Your task to perform on an android device: allow cookies in the chrome app Image 0: 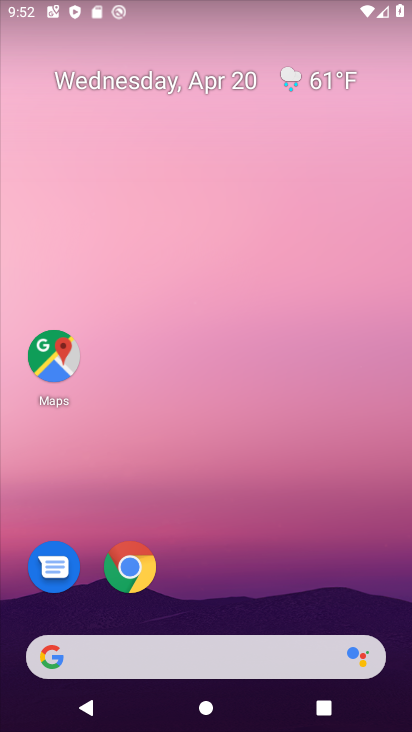
Step 0: click (127, 570)
Your task to perform on an android device: allow cookies in the chrome app Image 1: 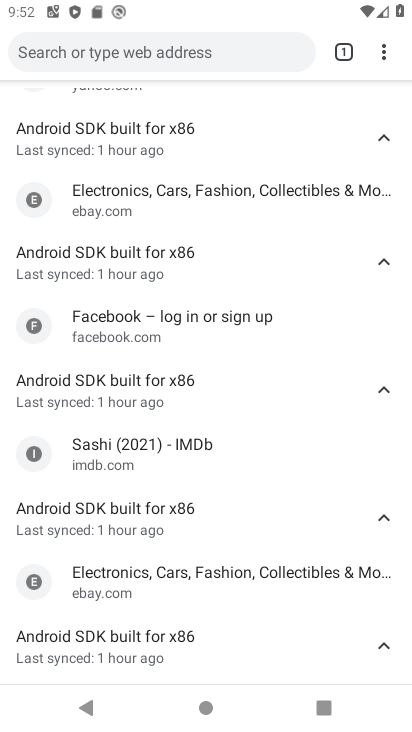
Step 1: drag from (376, 54) to (217, 492)
Your task to perform on an android device: allow cookies in the chrome app Image 2: 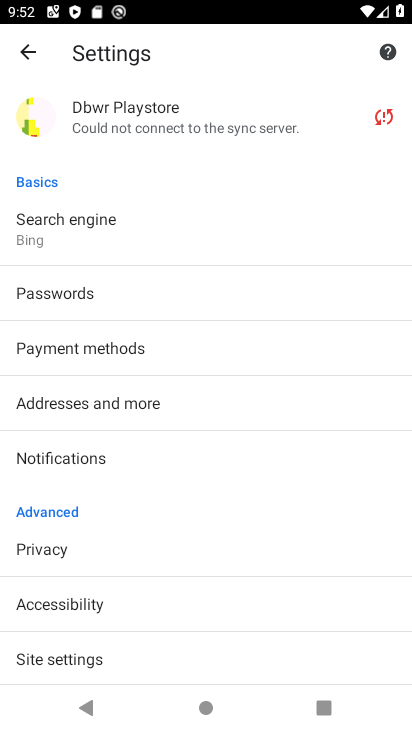
Step 2: drag from (168, 607) to (188, 372)
Your task to perform on an android device: allow cookies in the chrome app Image 3: 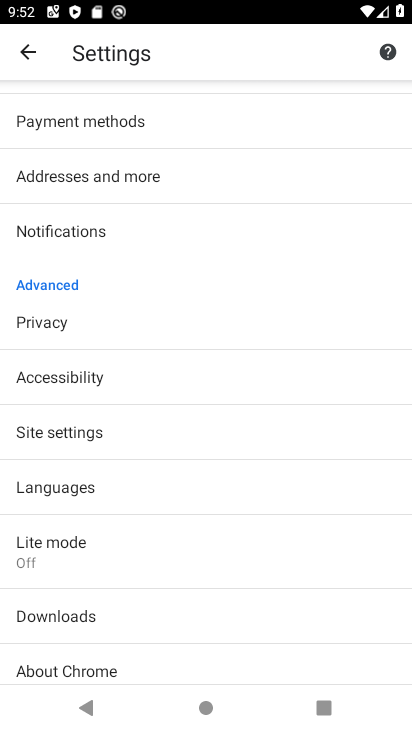
Step 3: click (110, 430)
Your task to perform on an android device: allow cookies in the chrome app Image 4: 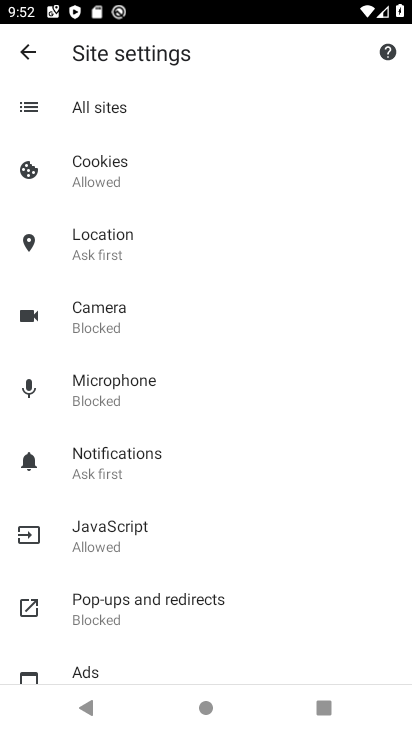
Step 4: click (149, 156)
Your task to perform on an android device: allow cookies in the chrome app Image 5: 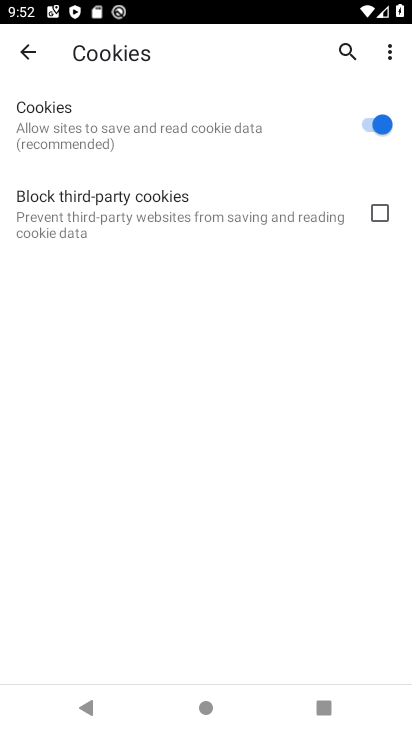
Step 5: task complete